Your task to perform on an android device: Open the map Image 0: 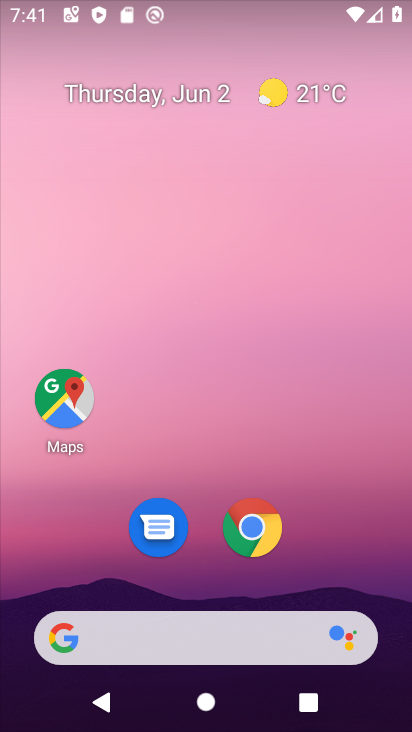
Step 0: click (56, 416)
Your task to perform on an android device: Open the map Image 1: 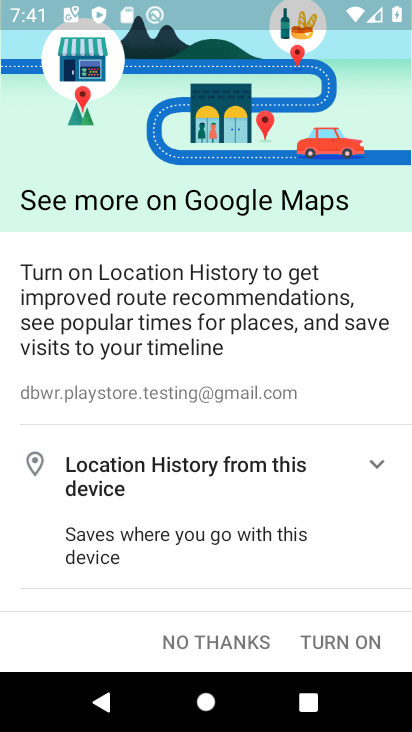
Step 1: task complete